Your task to perform on an android device: open wifi settings Image 0: 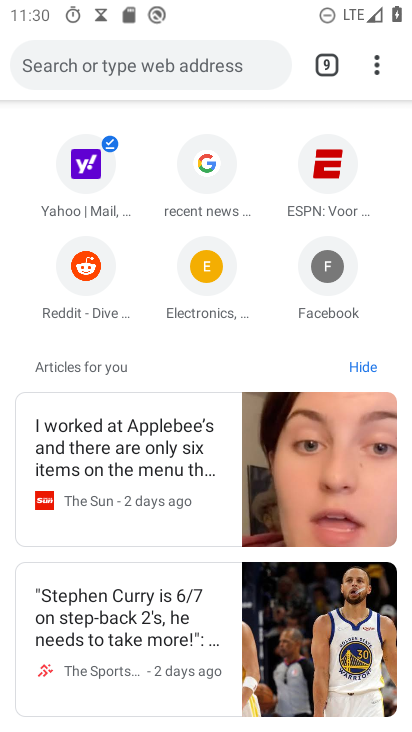
Step 0: press home button
Your task to perform on an android device: open wifi settings Image 1: 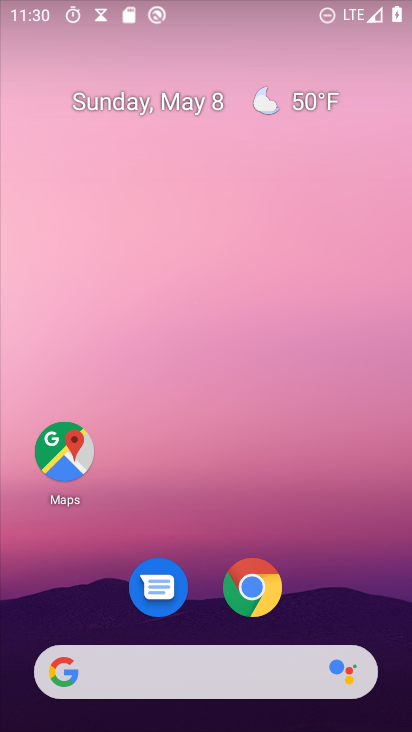
Step 1: drag from (286, 477) to (98, 97)
Your task to perform on an android device: open wifi settings Image 2: 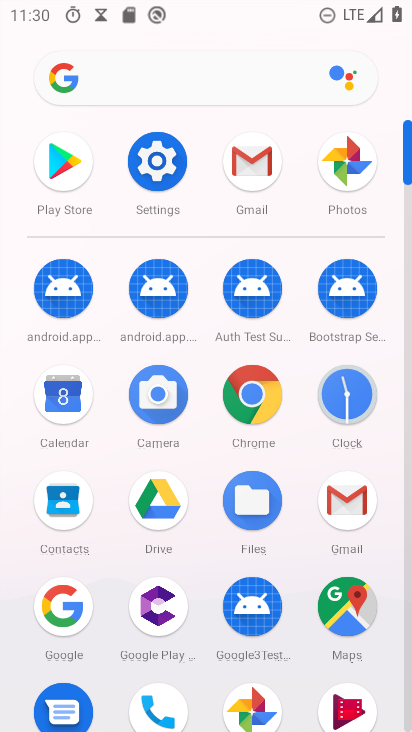
Step 2: click (156, 182)
Your task to perform on an android device: open wifi settings Image 3: 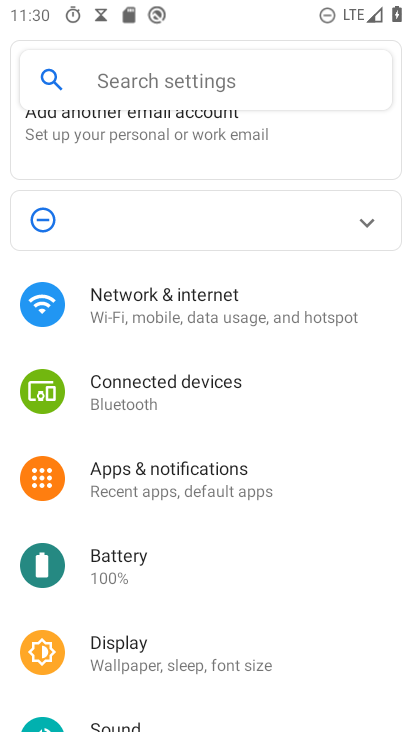
Step 3: click (159, 297)
Your task to perform on an android device: open wifi settings Image 4: 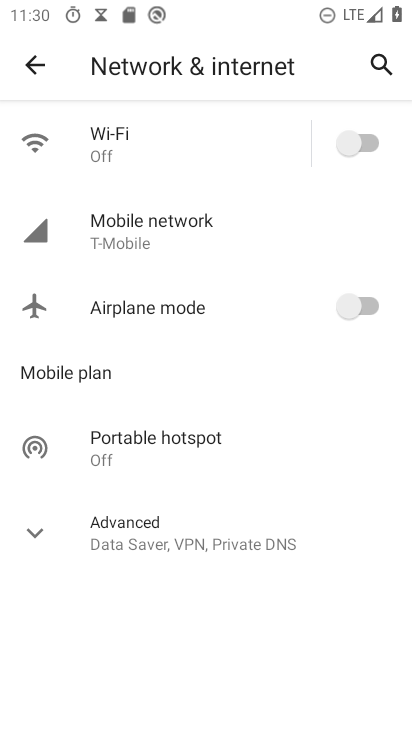
Step 4: click (108, 149)
Your task to perform on an android device: open wifi settings Image 5: 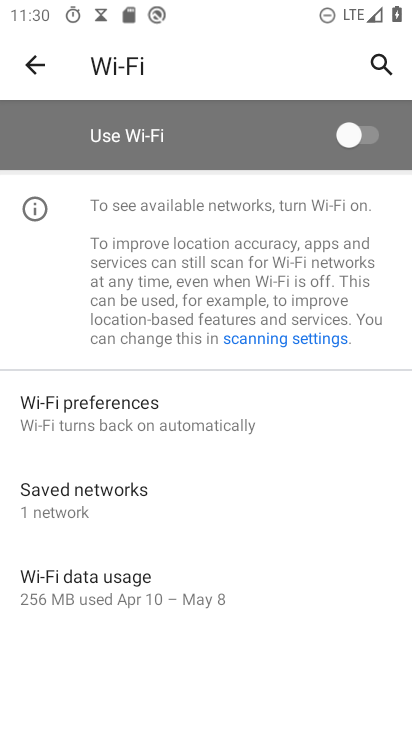
Step 5: task complete